Your task to perform on an android device: remove spam from my inbox in the gmail app Image 0: 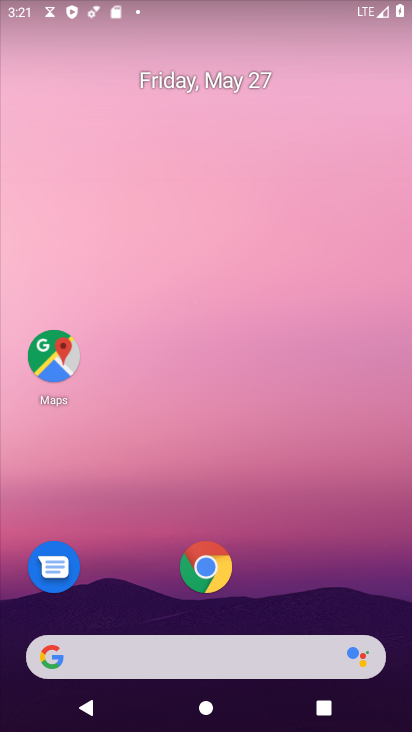
Step 0: drag from (124, 578) to (254, 127)
Your task to perform on an android device: remove spam from my inbox in the gmail app Image 1: 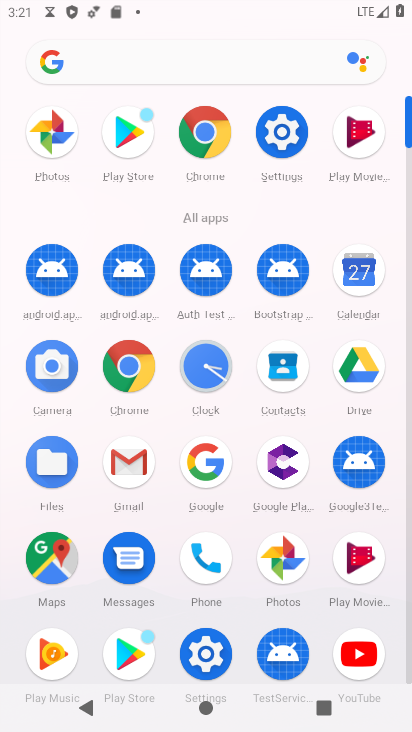
Step 1: click (139, 466)
Your task to perform on an android device: remove spam from my inbox in the gmail app Image 2: 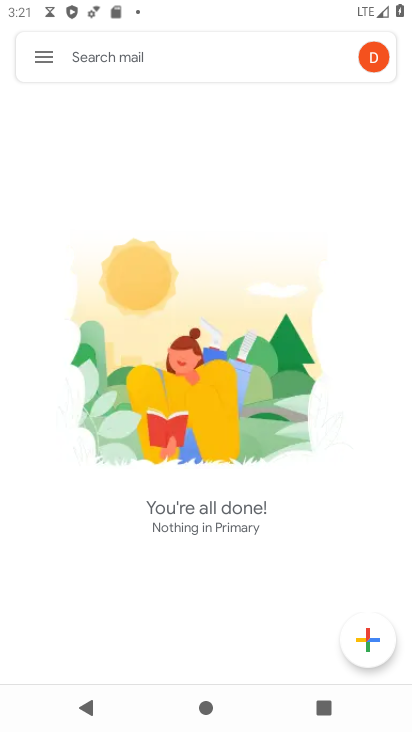
Step 2: click (45, 45)
Your task to perform on an android device: remove spam from my inbox in the gmail app Image 3: 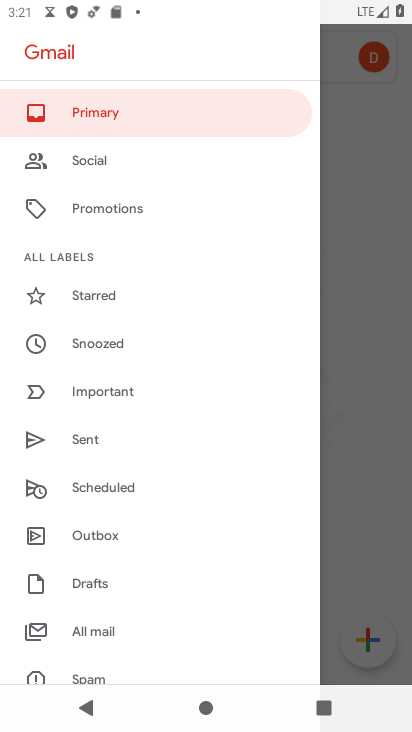
Step 3: click (86, 670)
Your task to perform on an android device: remove spam from my inbox in the gmail app Image 4: 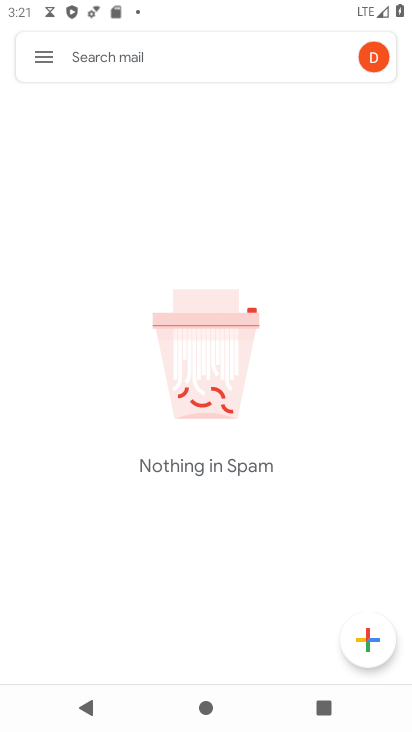
Step 4: task complete